Your task to perform on an android device: toggle notifications settings in the gmail app Image 0: 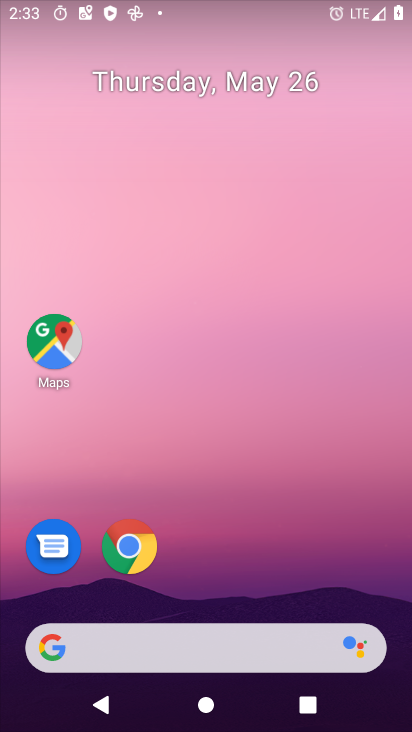
Step 0: drag from (228, 548) to (311, 128)
Your task to perform on an android device: toggle notifications settings in the gmail app Image 1: 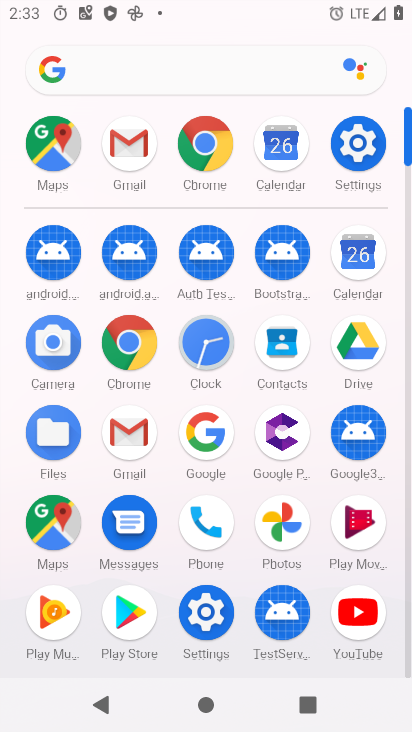
Step 1: click (135, 433)
Your task to perform on an android device: toggle notifications settings in the gmail app Image 2: 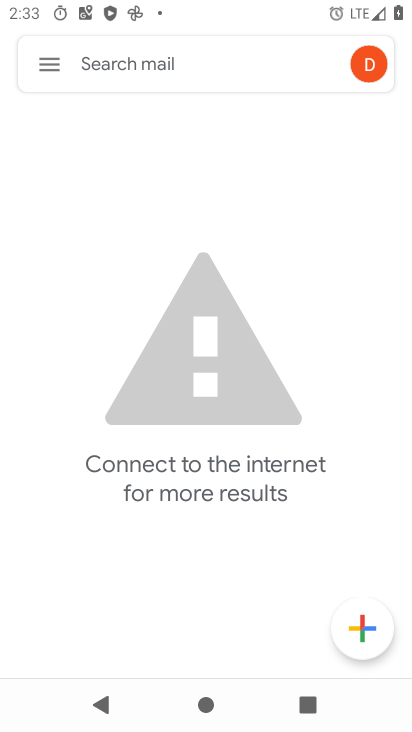
Step 2: click (50, 58)
Your task to perform on an android device: toggle notifications settings in the gmail app Image 3: 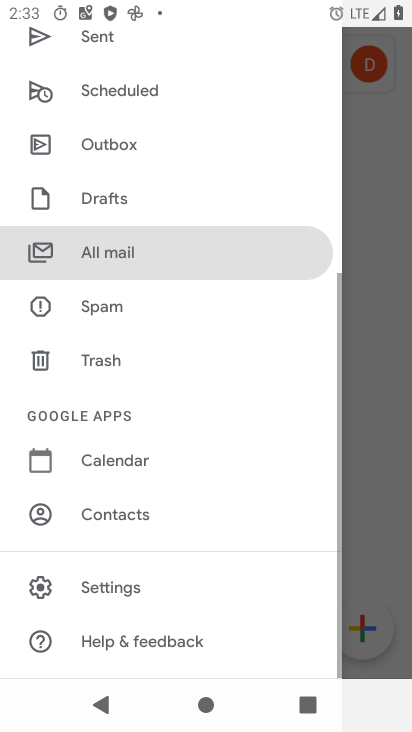
Step 3: click (159, 594)
Your task to perform on an android device: toggle notifications settings in the gmail app Image 4: 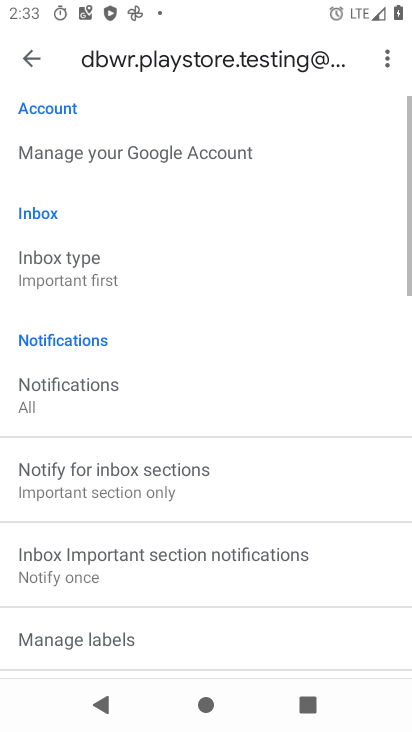
Step 4: click (73, 417)
Your task to perform on an android device: toggle notifications settings in the gmail app Image 5: 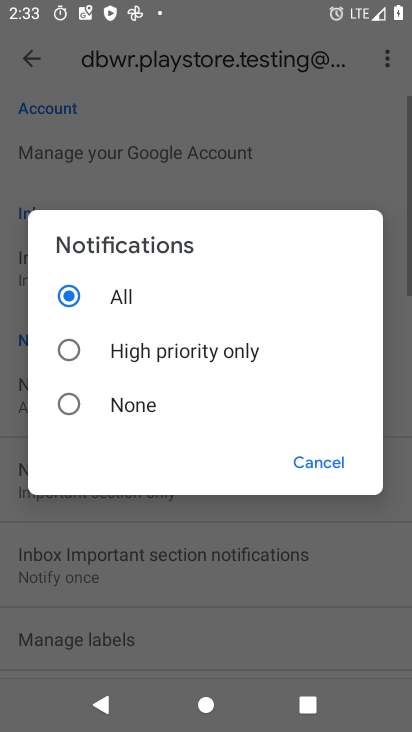
Step 5: click (61, 397)
Your task to perform on an android device: toggle notifications settings in the gmail app Image 6: 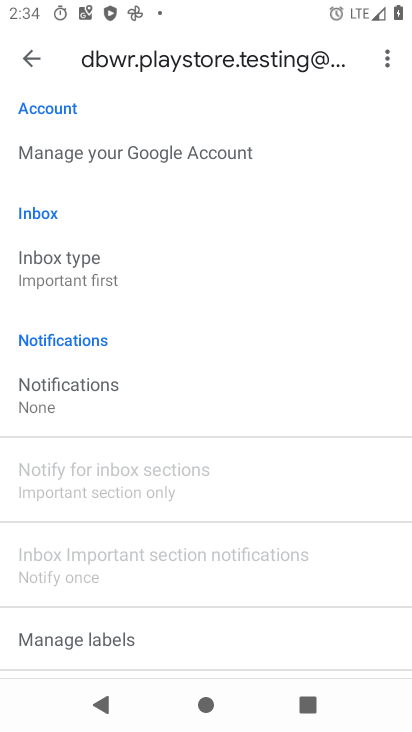
Step 6: task complete